Your task to perform on an android device: change text size in settings app Image 0: 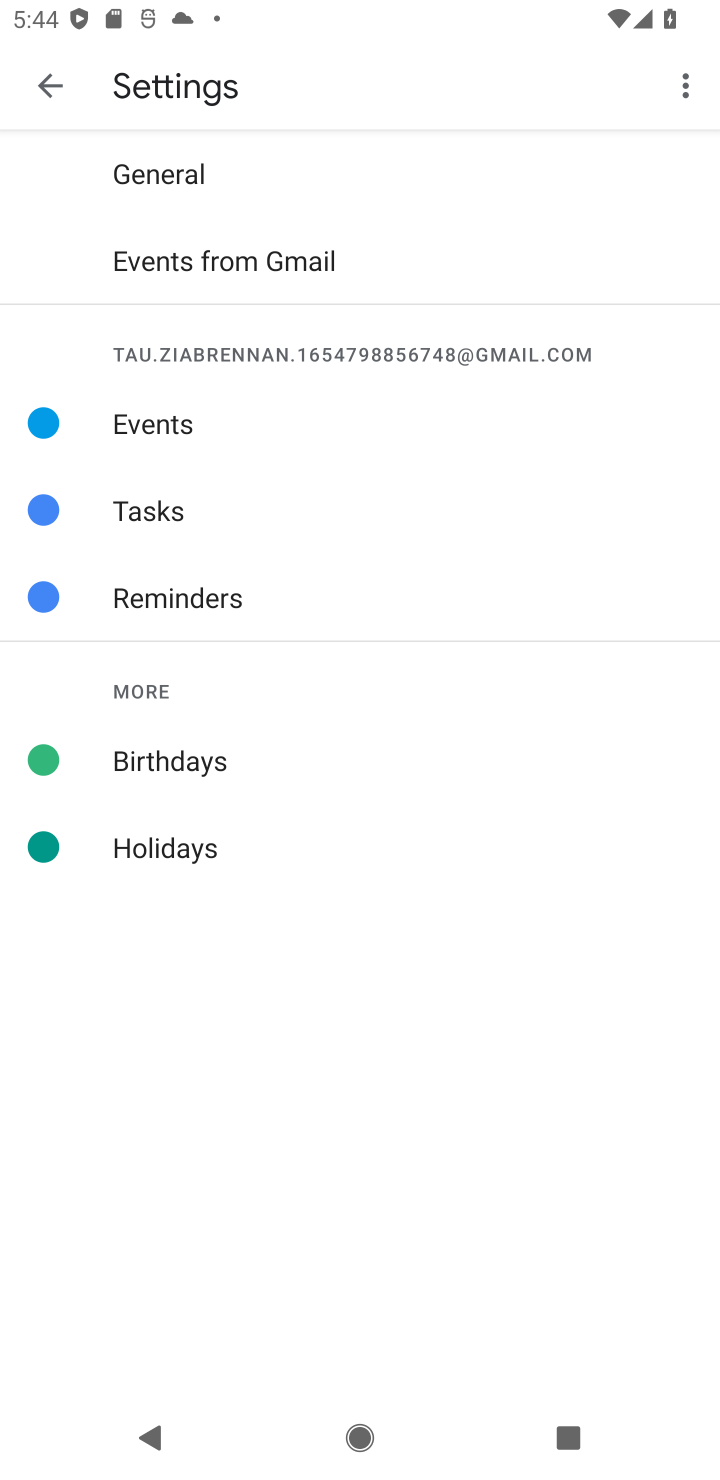
Step 0: press home button
Your task to perform on an android device: change text size in settings app Image 1: 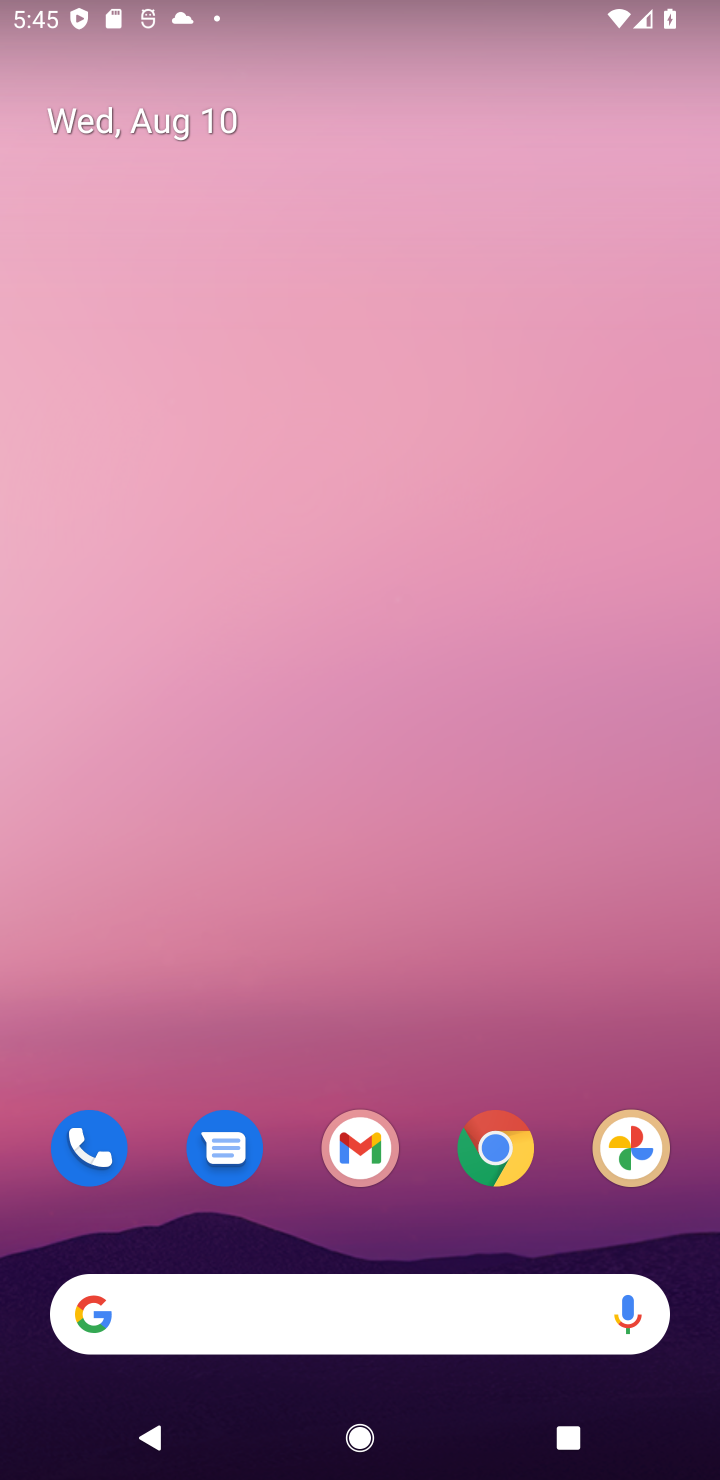
Step 1: task complete